Your task to perform on an android device: turn off location history Image 0: 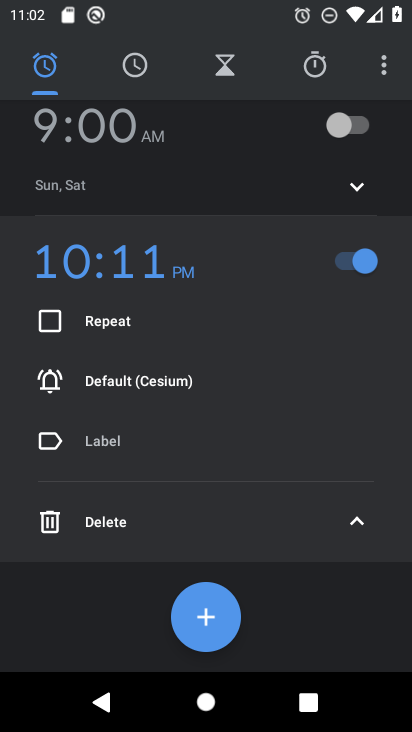
Step 0: press home button
Your task to perform on an android device: turn off location history Image 1: 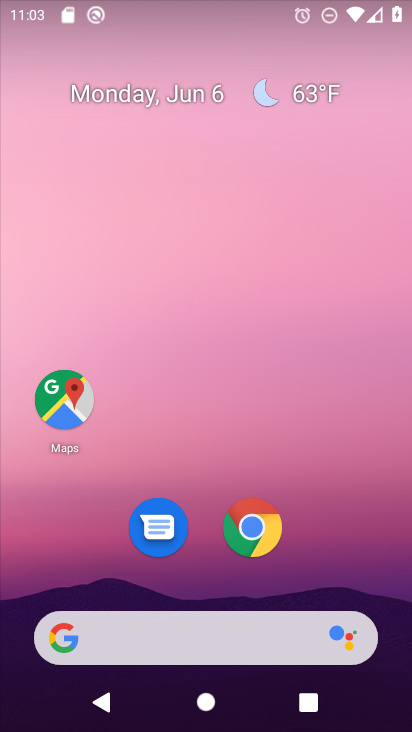
Step 1: drag from (354, 565) to (397, 475)
Your task to perform on an android device: turn off location history Image 2: 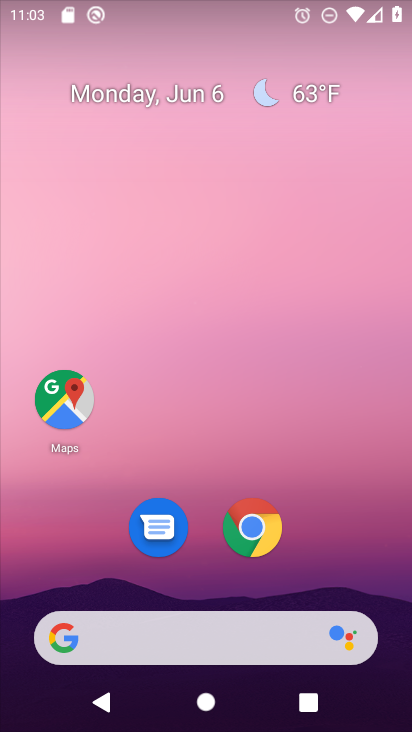
Step 2: drag from (337, 556) to (314, 148)
Your task to perform on an android device: turn off location history Image 3: 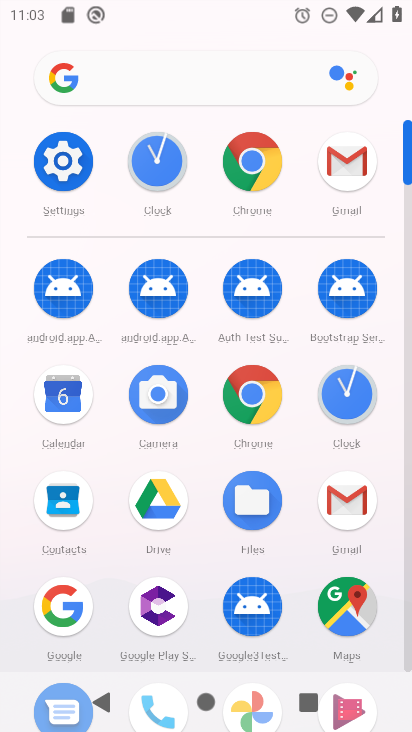
Step 3: click (68, 183)
Your task to perform on an android device: turn off location history Image 4: 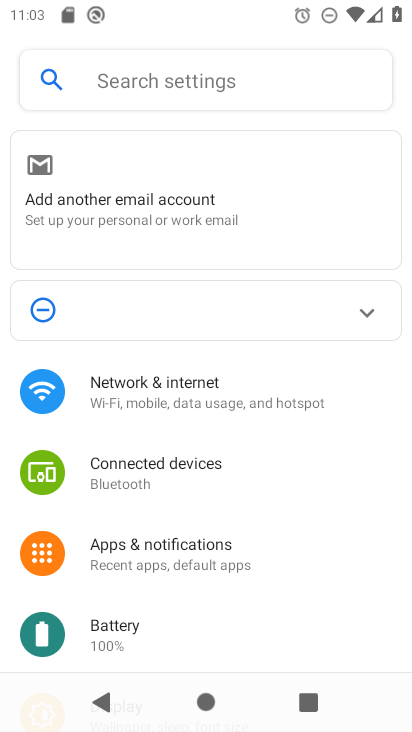
Step 4: drag from (371, 541) to (353, 321)
Your task to perform on an android device: turn off location history Image 5: 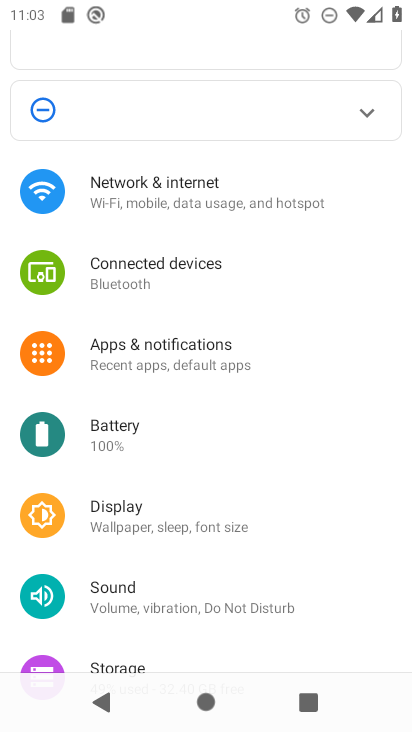
Step 5: drag from (314, 483) to (311, 280)
Your task to perform on an android device: turn off location history Image 6: 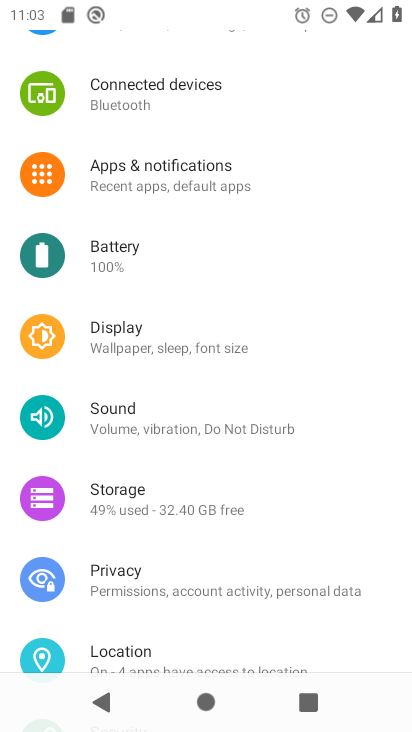
Step 6: drag from (336, 509) to (346, 239)
Your task to perform on an android device: turn off location history Image 7: 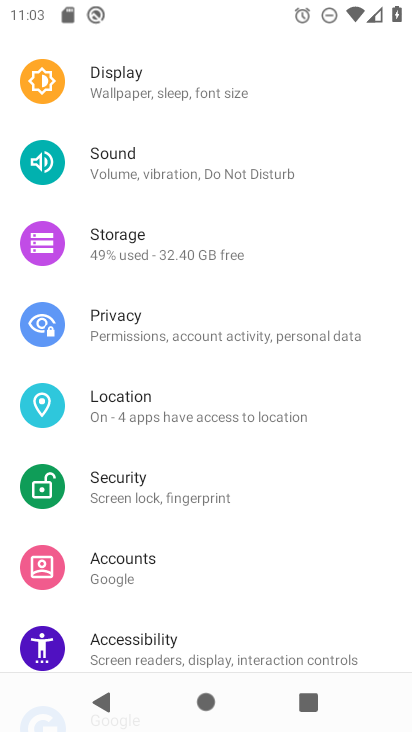
Step 7: drag from (331, 533) to (343, 316)
Your task to perform on an android device: turn off location history Image 8: 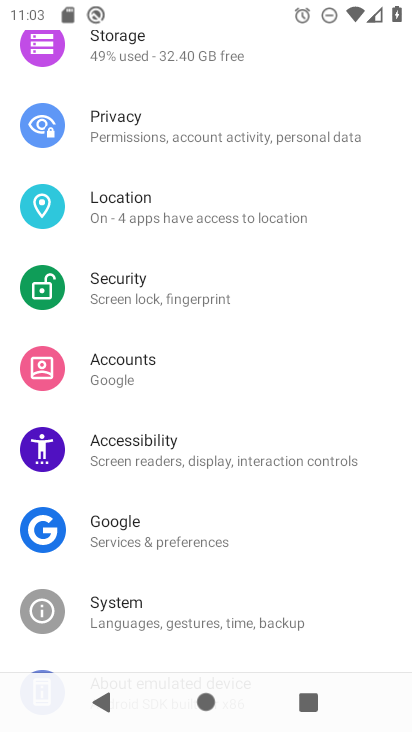
Step 8: drag from (360, 199) to (331, 410)
Your task to perform on an android device: turn off location history Image 9: 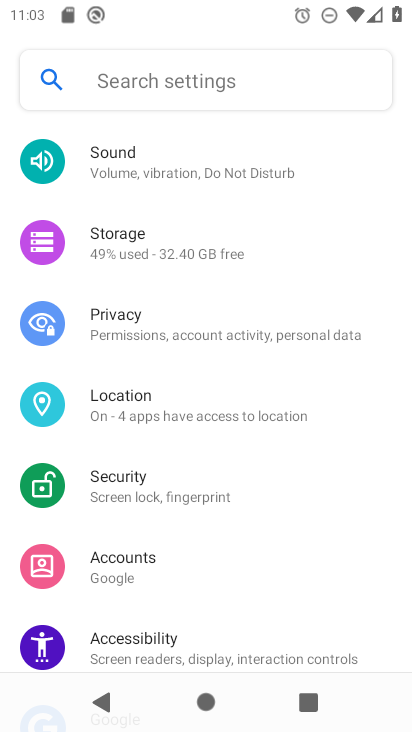
Step 9: drag from (319, 170) to (329, 350)
Your task to perform on an android device: turn off location history Image 10: 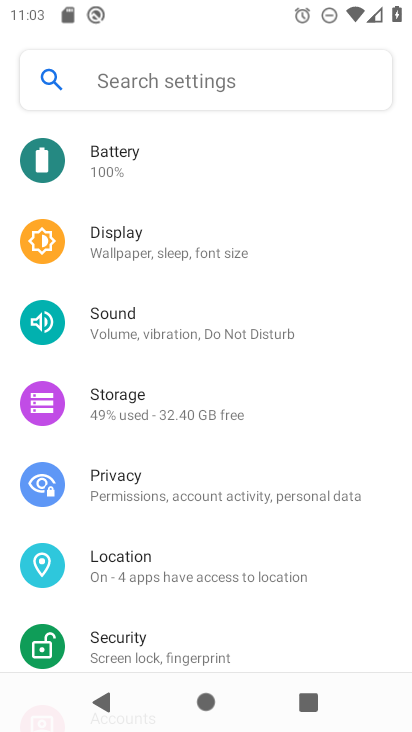
Step 10: drag from (327, 168) to (327, 373)
Your task to perform on an android device: turn off location history Image 11: 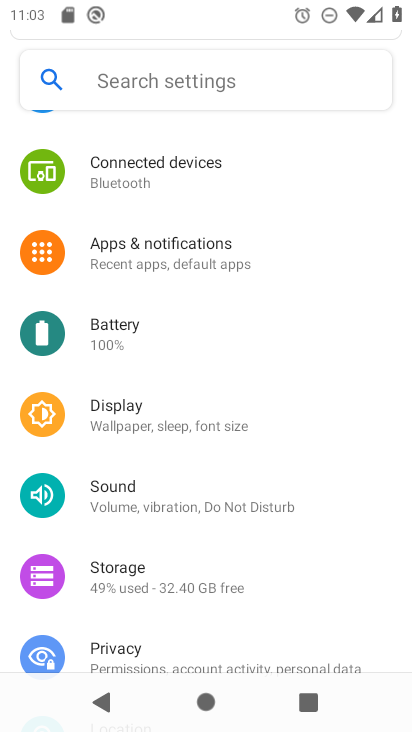
Step 11: drag from (326, 188) to (340, 429)
Your task to perform on an android device: turn off location history Image 12: 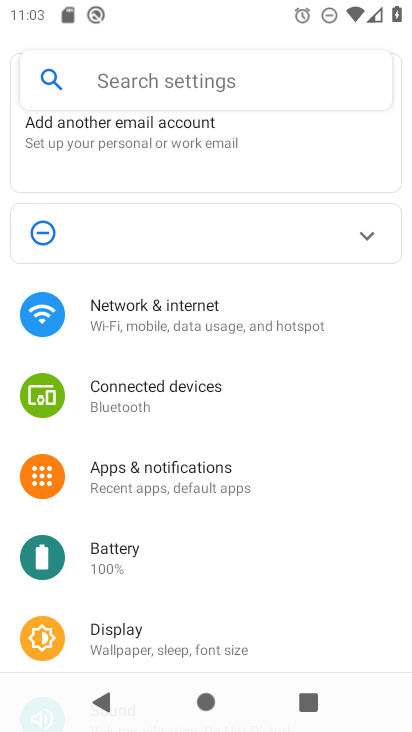
Step 12: drag from (309, 480) to (291, 347)
Your task to perform on an android device: turn off location history Image 13: 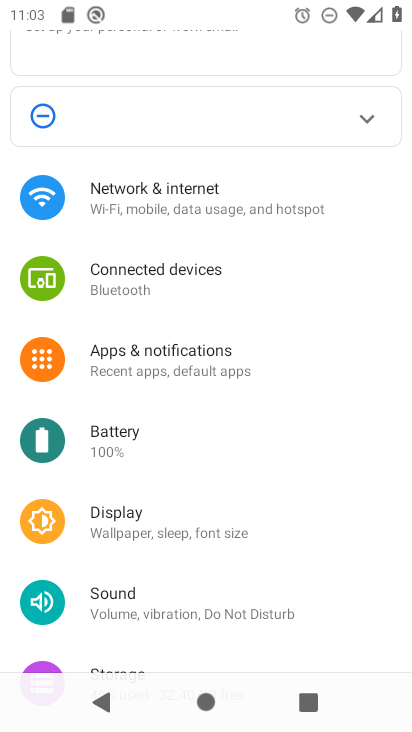
Step 13: drag from (309, 519) to (322, 306)
Your task to perform on an android device: turn off location history Image 14: 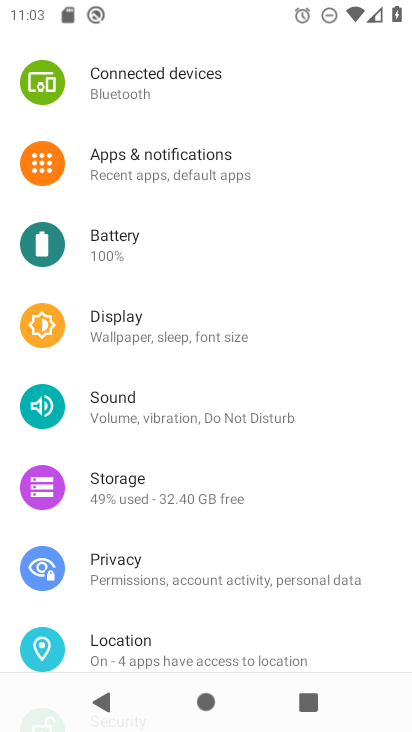
Step 14: drag from (329, 506) to (343, 285)
Your task to perform on an android device: turn off location history Image 15: 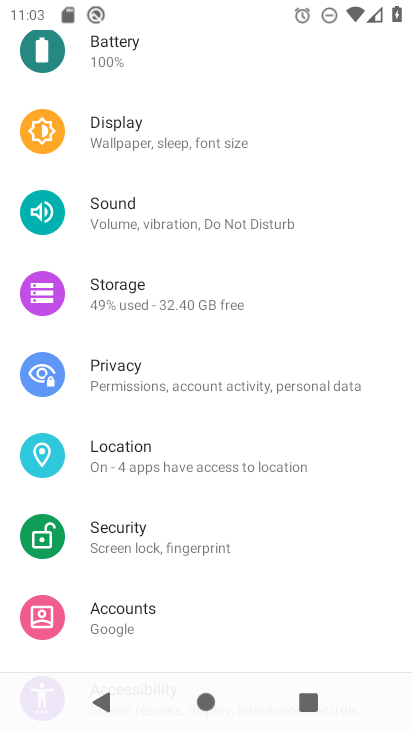
Step 15: click (236, 462)
Your task to perform on an android device: turn off location history Image 16: 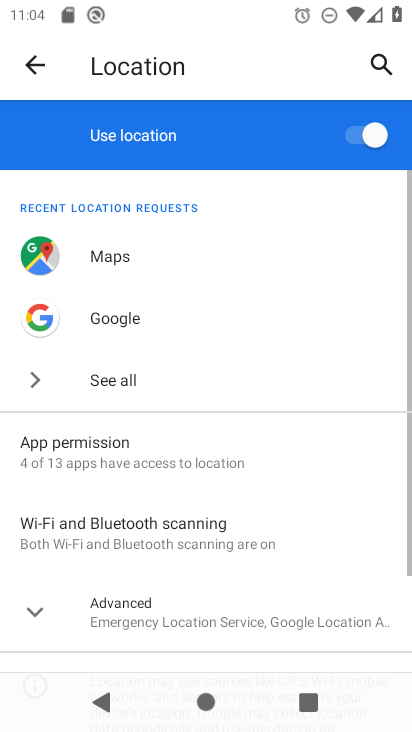
Step 16: drag from (273, 471) to (291, 284)
Your task to perform on an android device: turn off location history Image 17: 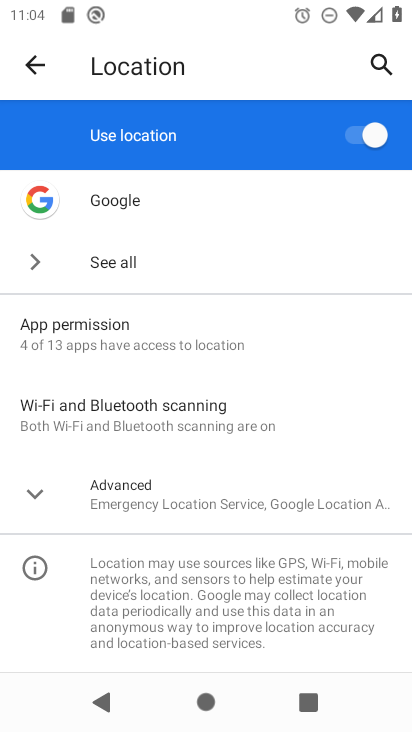
Step 17: click (279, 500)
Your task to perform on an android device: turn off location history Image 18: 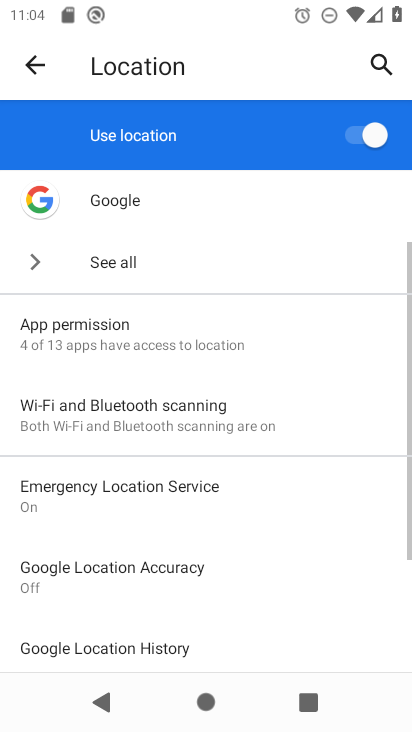
Step 18: drag from (274, 529) to (287, 401)
Your task to perform on an android device: turn off location history Image 19: 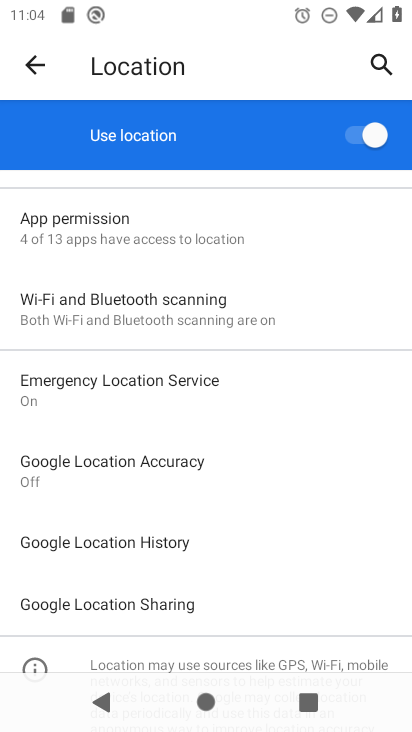
Step 19: click (200, 551)
Your task to perform on an android device: turn off location history Image 20: 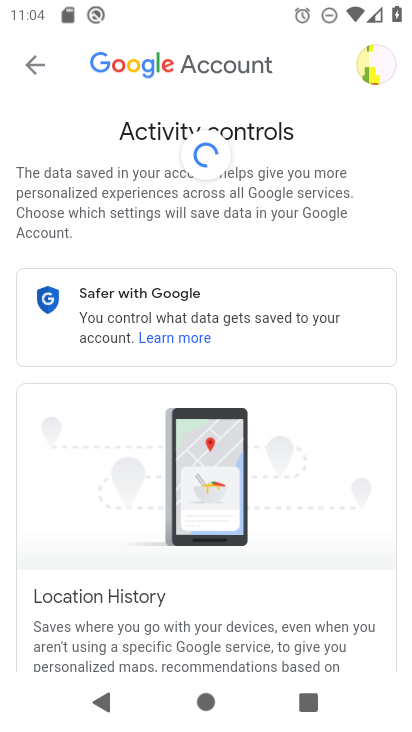
Step 20: drag from (295, 537) to (270, 321)
Your task to perform on an android device: turn off location history Image 21: 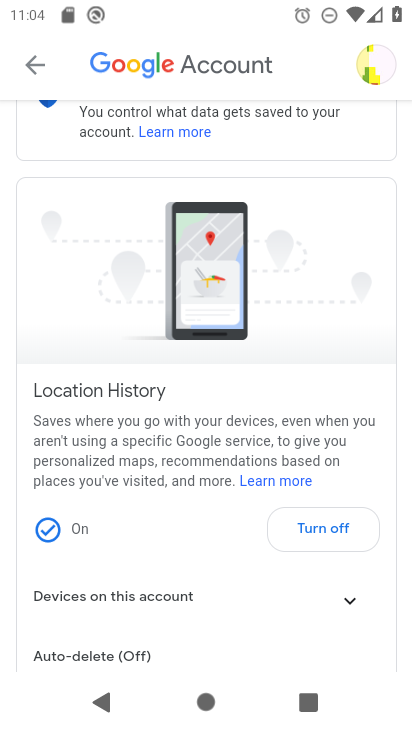
Step 21: click (306, 530)
Your task to perform on an android device: turn off location history Image 22: 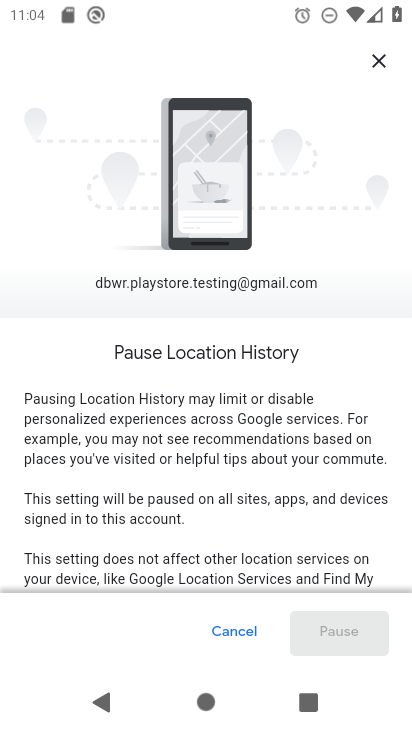
Step 22: drag from (337, 533) to (351, 183)
Your task to perform on an android device: turn off location history Image 23: 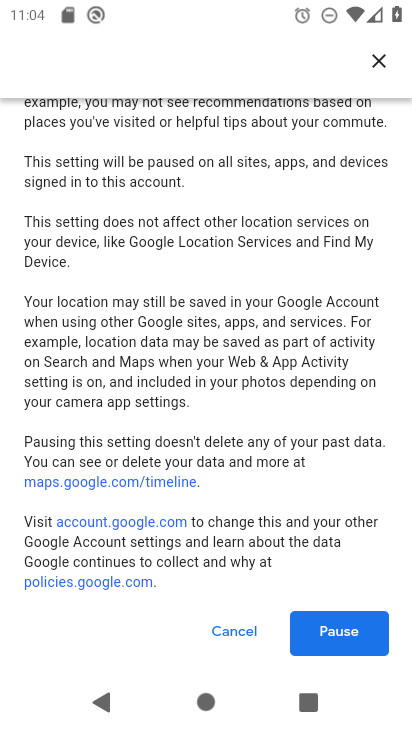
Step 23: drag from (325, 464) to (329, 251)
Your task to perform on an android device: turn off location history Image 24: 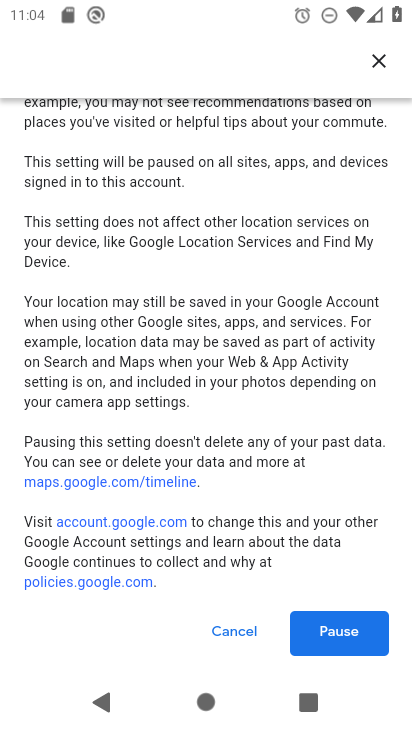
Step 24: click (318, 626)
Your task to perform on an android device: turn off location history Image 25: 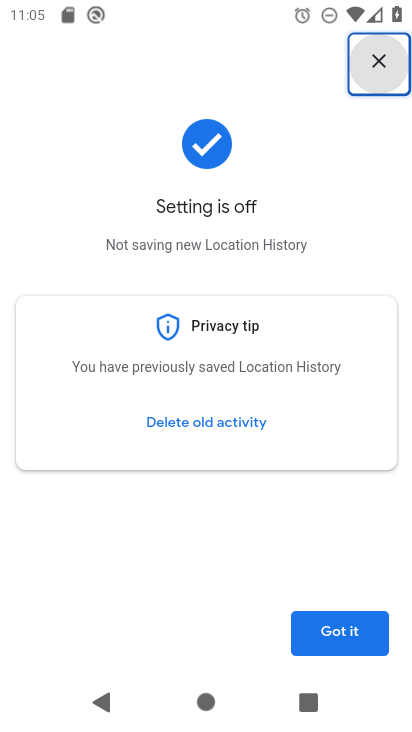
Step 25: task complete